Your task to perform on an android device: clear all cookies in the chrome app Image 0: 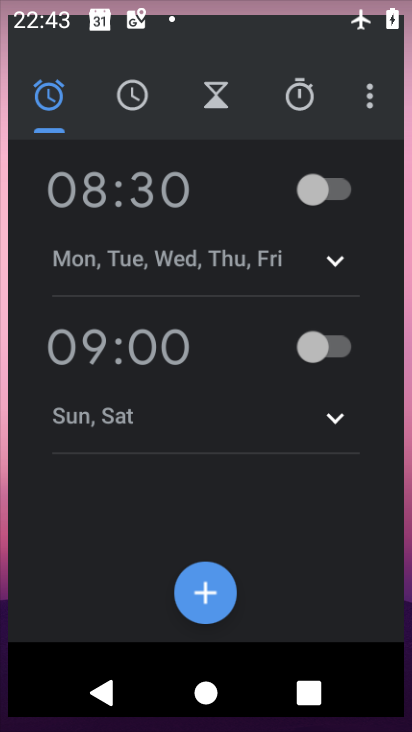
Step 0: drag from (346, 574) to (314, 265)
Your task to perform on an android device: clear all cookies in the chrome app Image 1: 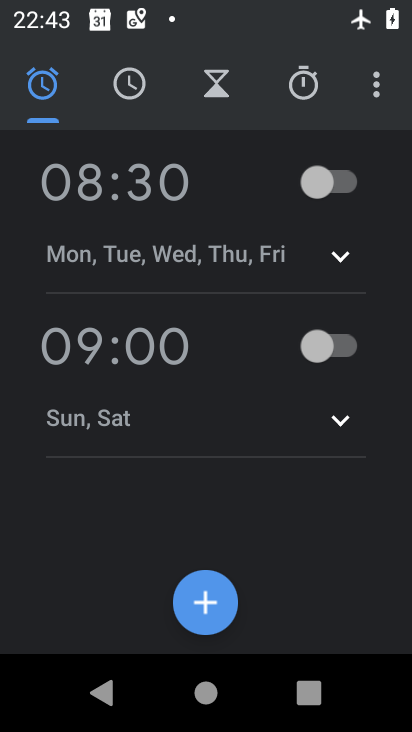
Step 1: press home button
Your task to perform on an android device: clear all cookies in the chrome app Image 2: 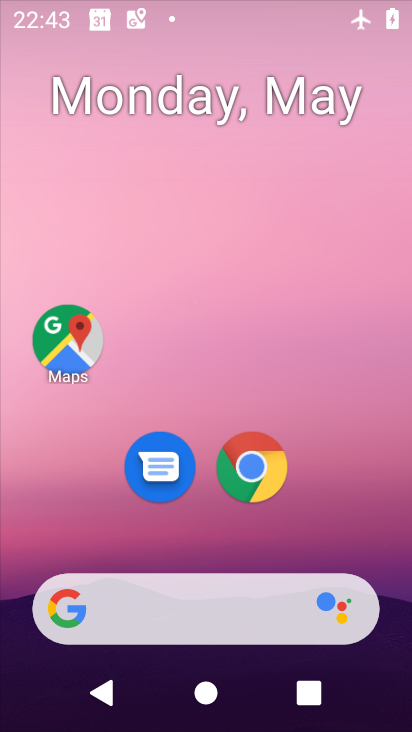
Step 2: drag from (221, 578) to (239, 194)
Your task to perform on an android device: clear all cookies in the chrome app Image 3: 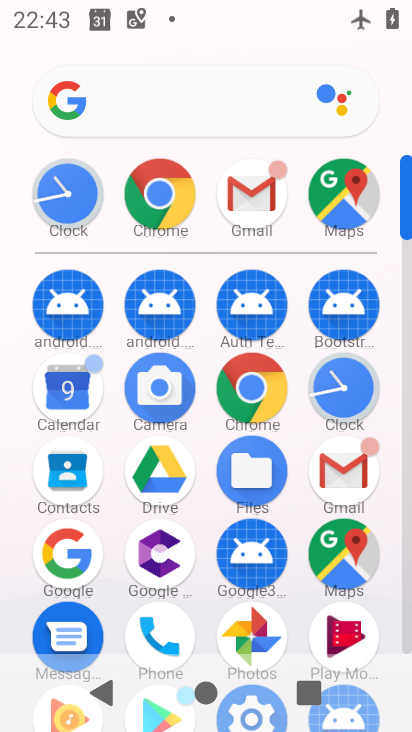
Step 3: click (244, 384)
Your task to perform on an android device: clear all cookies in the chrome app Image 4: 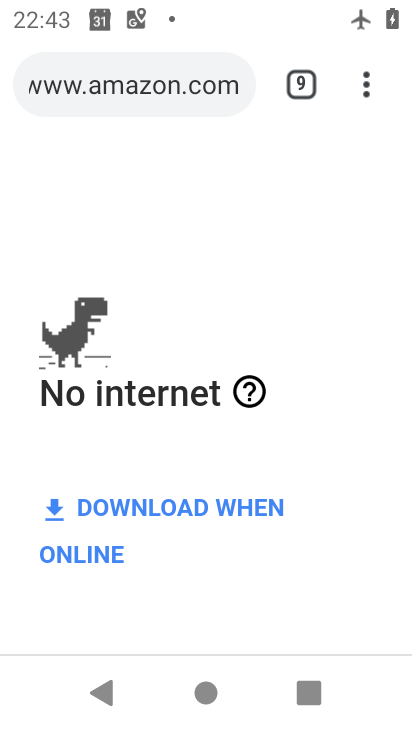
Step 4: click (366, 68)
Your task to perform on an android device: clear all cookies in the chrome app Image 5: 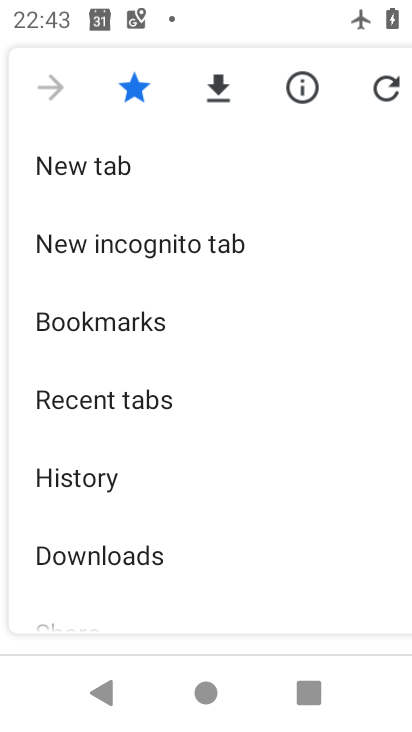
Step 5: drag from (144, 536) to (210, 162)
Your task to perform on an android device: clear all cookies in the chrome app Image 6: 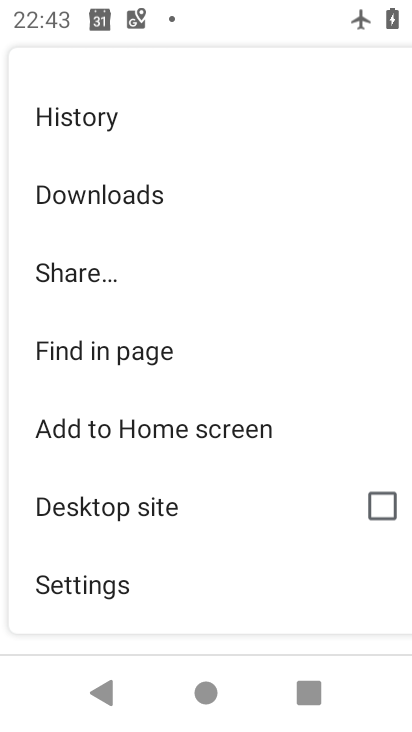
Step 6: click (112, 582)
Your task to perform on an android device: clear all cookies in the chrome app Image 7: 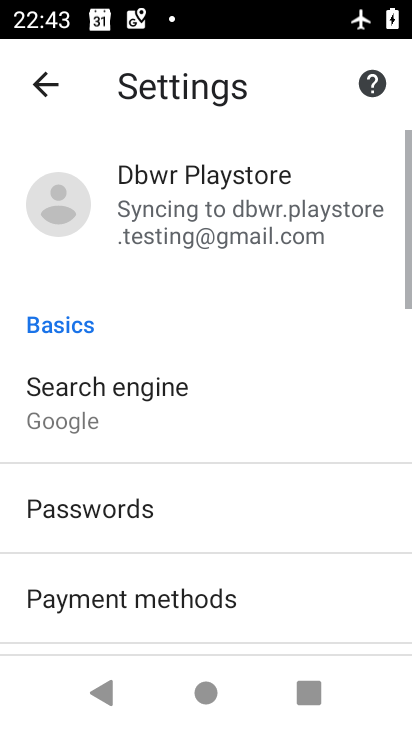
Step 7: drag from (187, 540) to (268, 163)
Your task to perform on an android device: clear all cookies in the chrome app Image 8: 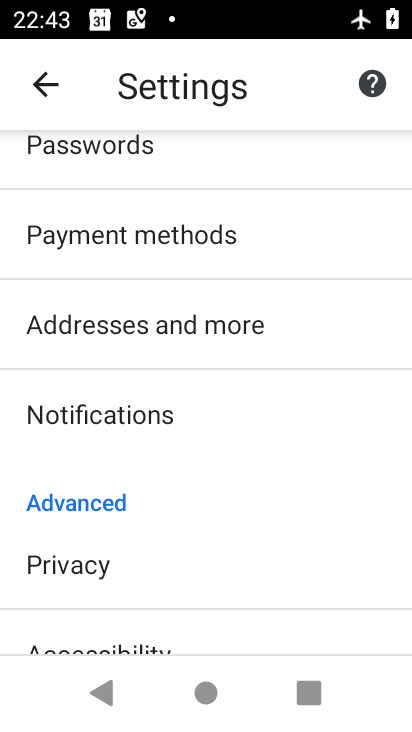
Step 8: click (116, 570)
Your task to perform on an android device: clear all cookies in the chrome app Image 9: 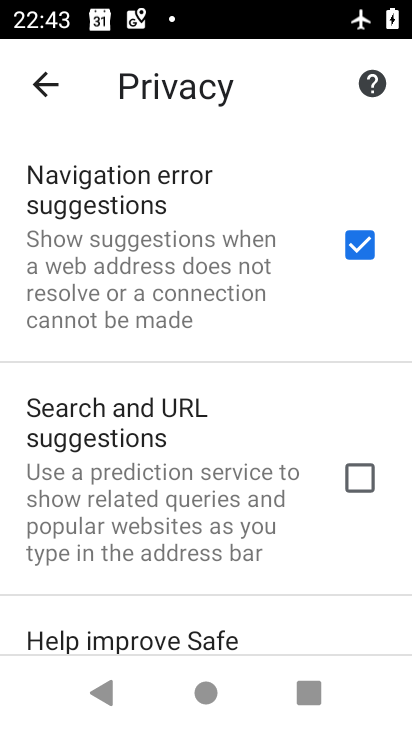
Step 9: drag from (203, 547) to (283, 77)
Your task to perform on an android device: clear all cookies in the chrome app Image 10: 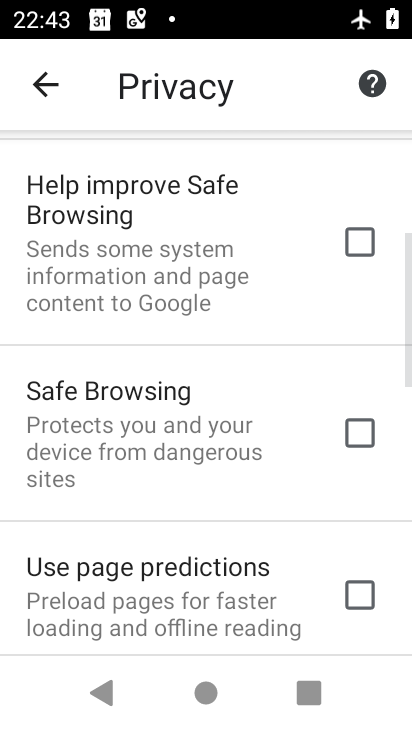
Step 10: drag from (229, 616) to (265, 145)
Your task to perform on an android device: clear all cookies in the chrome app Image 11: 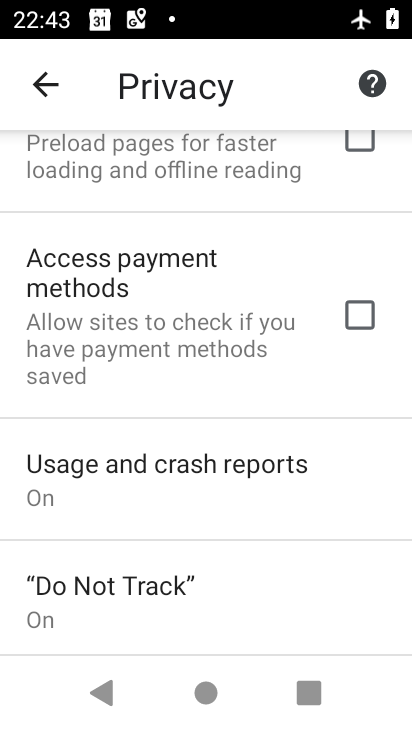
Step 11: drag from (166, 587) to (253, 122)
Your task to perform on an android device: clear all cookies in the chrome app Image 12: 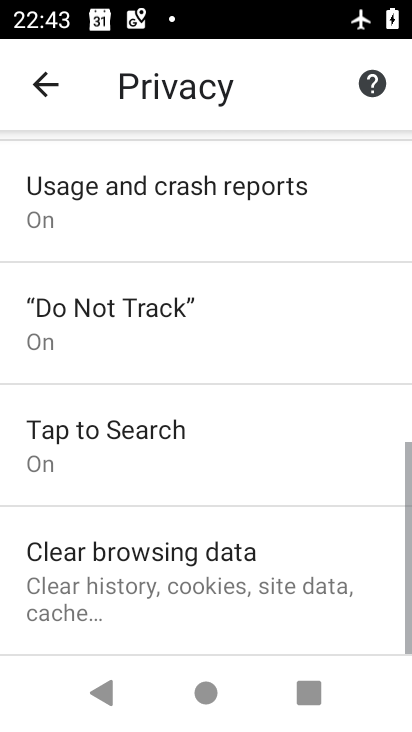
Step 12: click (182, 603)
Your task to perform on an android device: clear all cookies in the chrome app Image 13: 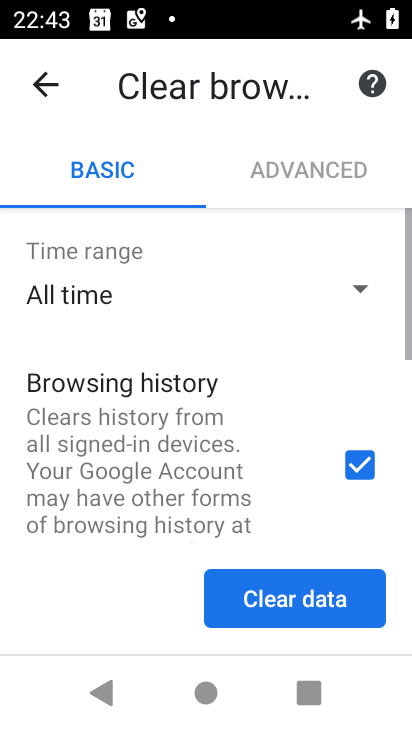
Step 13: click (280, 611)
Your task to perform on an android device: clear all cookies in the chrome app Image 14: 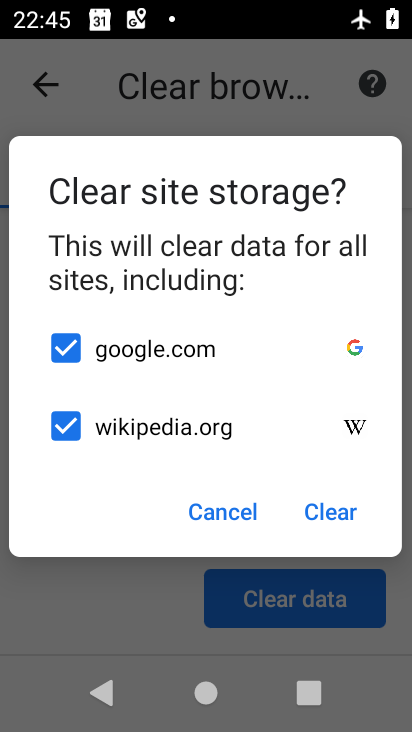
Step 14: click (331, 505)
Your task to perform on an android device: clear all cookies in the chrome app Image 15: 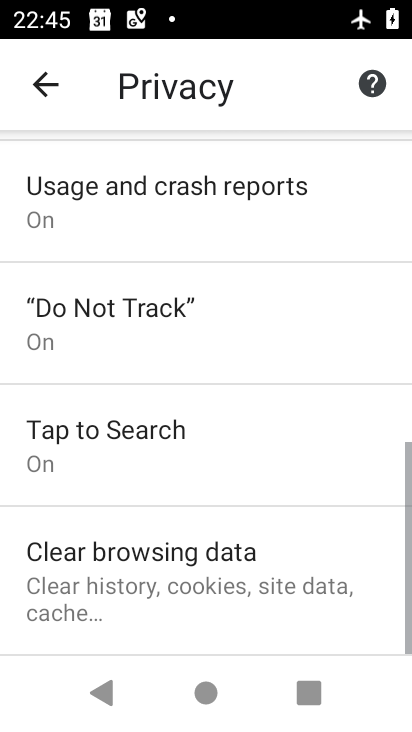
Step 15: task complete